Your task to perform on an android device: Open settings Image 0: 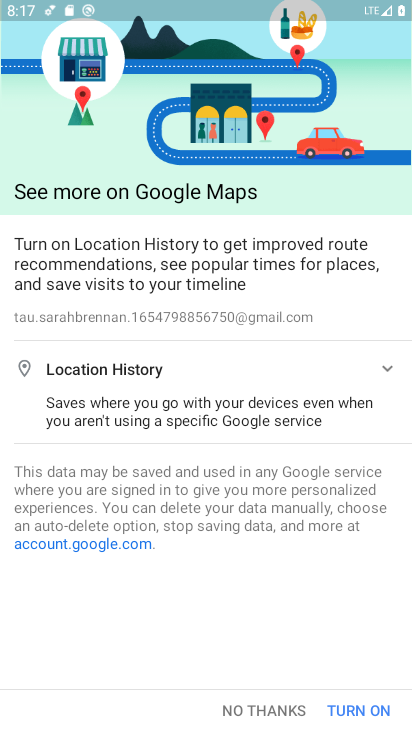
Step 0: press home button
Your task to perform on an android device: Open settings Image 1: 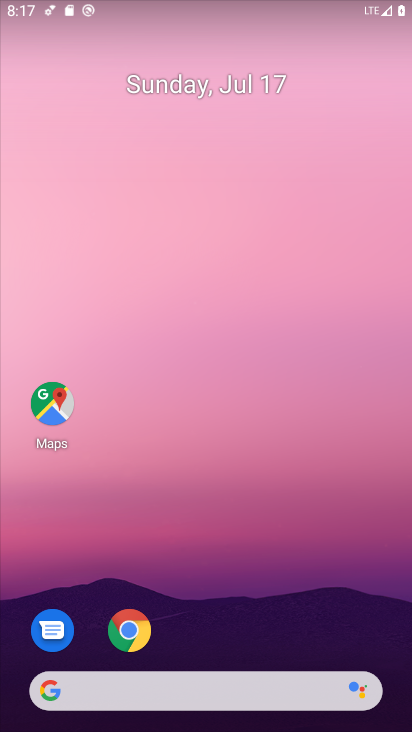
Step 1: drag from (264, 640) to (270, 140)
Your task to perform on an android device: Open settings Image 2: 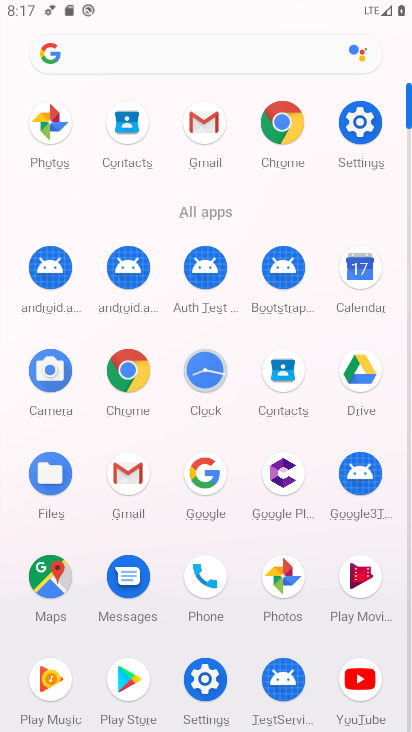
Step 2: click (215, 679)
Your task to perform on an android device: Open settings Image 3: 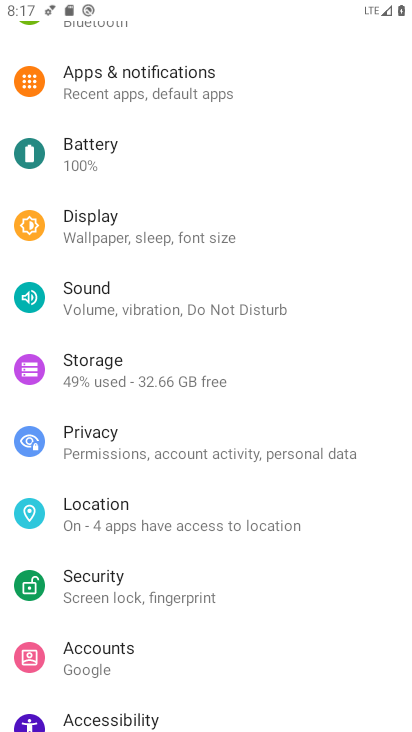
Step 3: task complete